Your task to perform on an android device: Open the stopwatch Image 0: 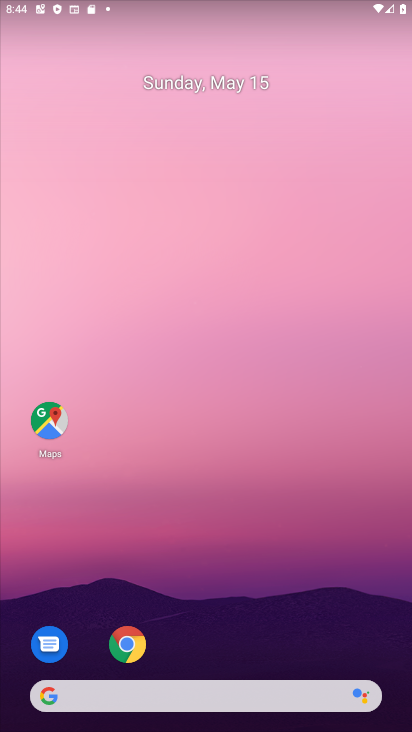
Step 0: drag from (208, 659) to (228, 12)
Your task to perform on an android device: Open the stopwatch Image 1: 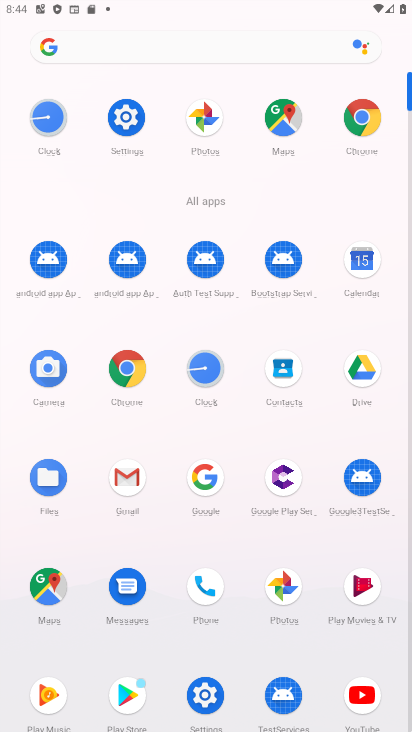
Step 1: click (205, 369)
Your task to perform on an android device: Open the stopwatch Image 2: 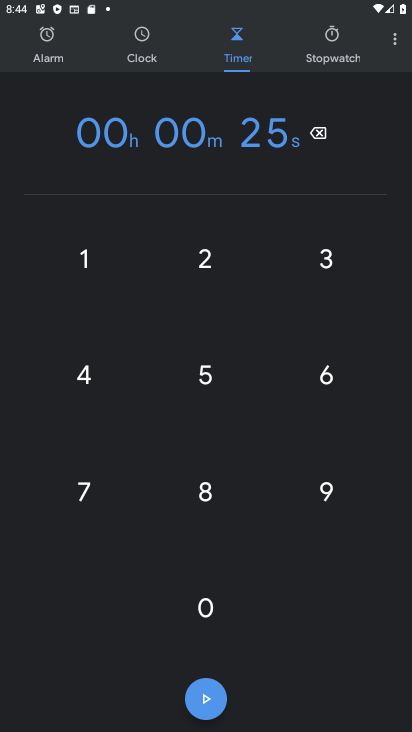
Step 2: click (335, 47)
Your task to perform on an android device: Open the stopwatch Image 3: 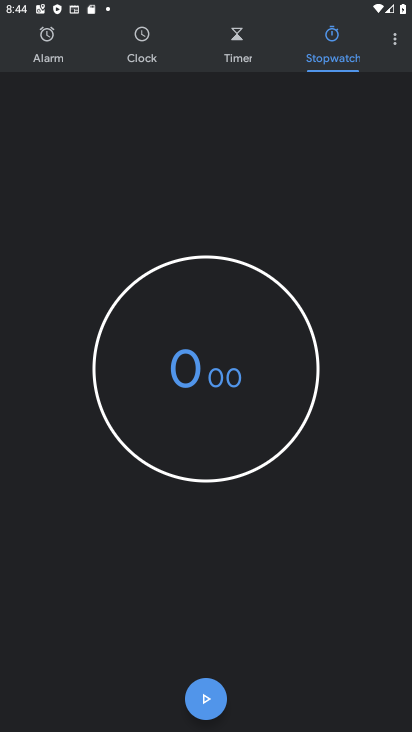
Step 3: task complete